Your task to perform on an android device: toggle location history Image 0: 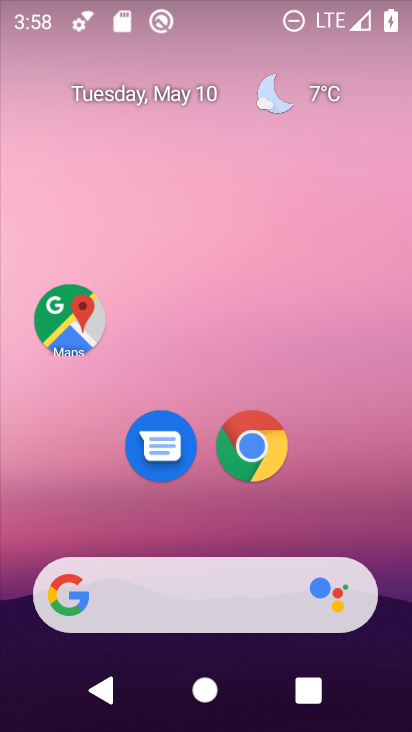
Step 0: drag from (216, 521) to (216, 99)
Your task to perform on an android device: toggle location history Image 1: 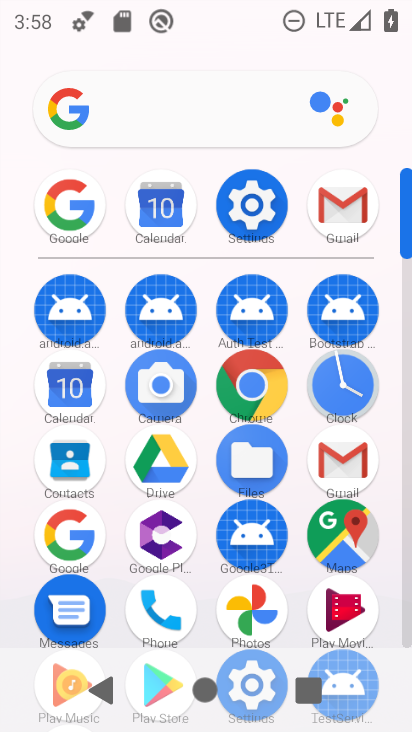
Step 1: click (261, 204)
Your task to perform on an android device: toggle location history Image 2: 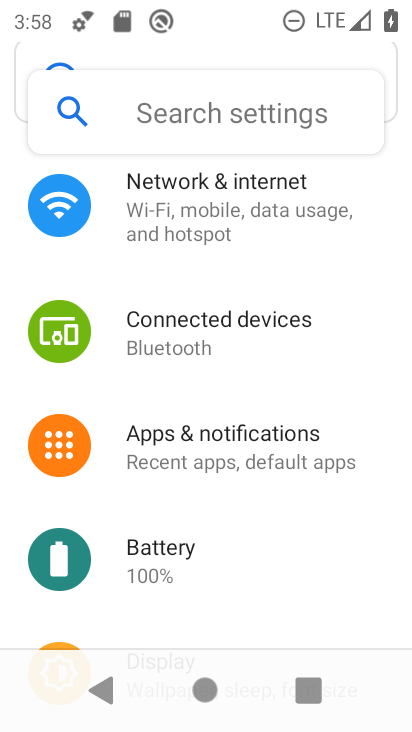
Step 2: drag from (253, 513) to (226, 226)
Your task to perform on an android device: toggle location history Image 3: 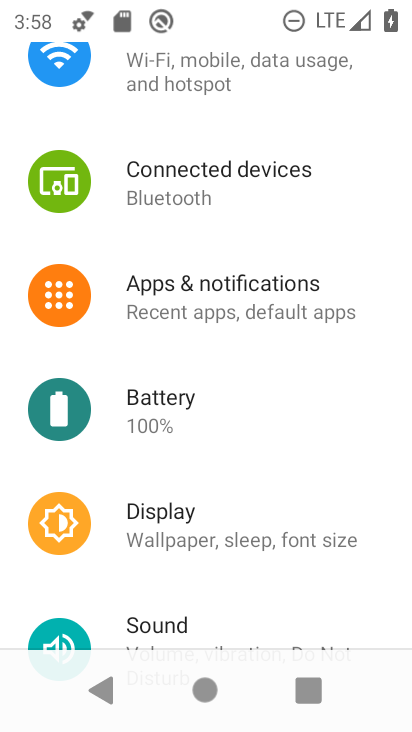
Step 3: drag from (236, 542) to (254, 218)
Your task to perform on an android device: toggle location history Image 4: 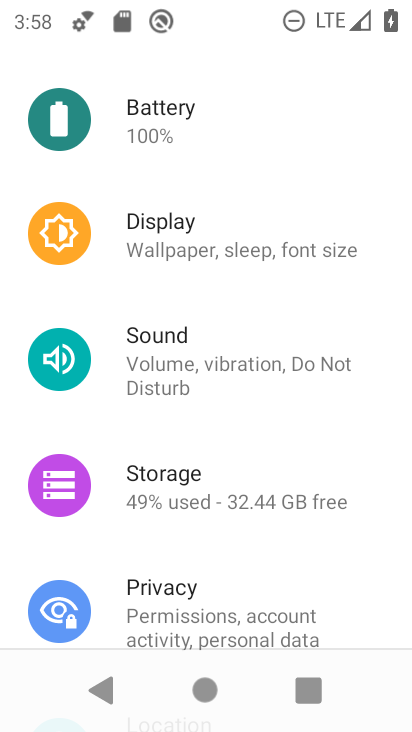
Step 4: drag from (224, 542) to (251, 183)
Your task to perform on an android device: toggle location history Image 5: 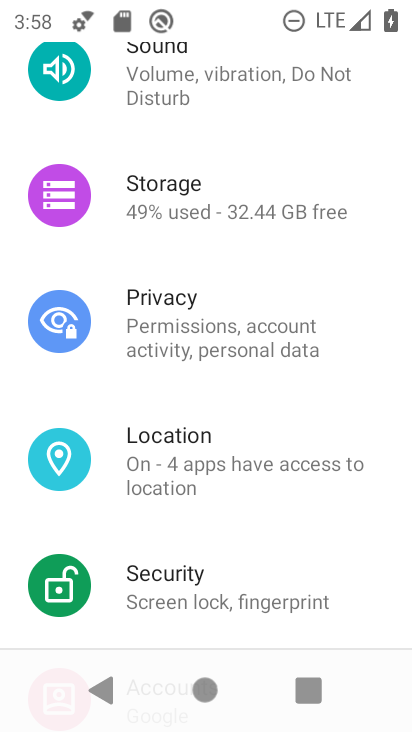
Step 5: click (231, 451)
Your task to perform on an android device: toggle location history Image 6: 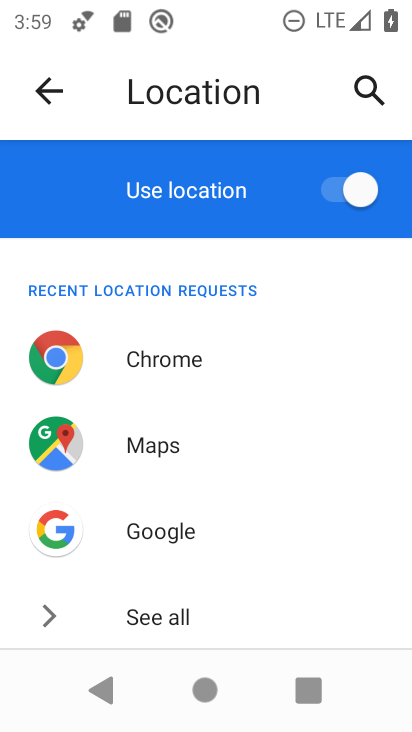
Step 6: drag from (243, 556) to (275, 181)
Your task to perform on an android device: toggle location history Image 7: 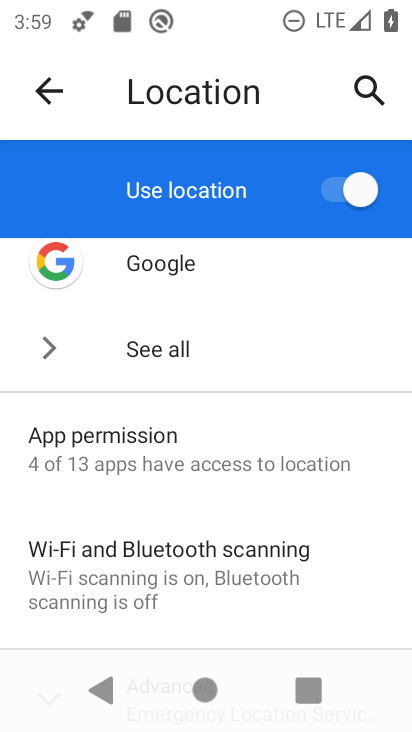
Step 7: drag from (225, 533) to (230, 325)
Your task to perform on an android device: toggle location history Image 8: 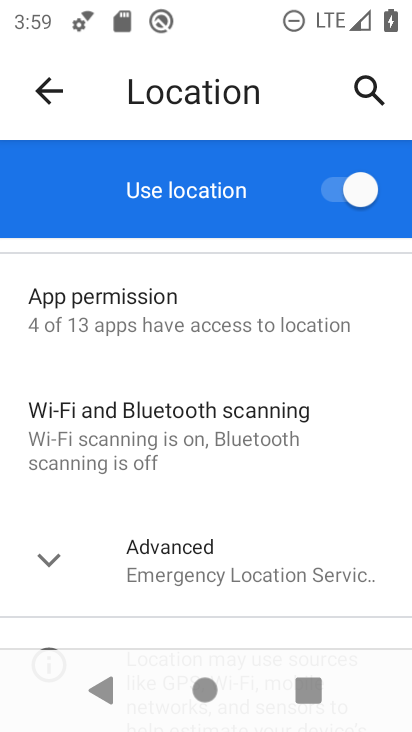
Step 8: click (179, 548)
Your task to perform on an android device: toggle location history Image 9: 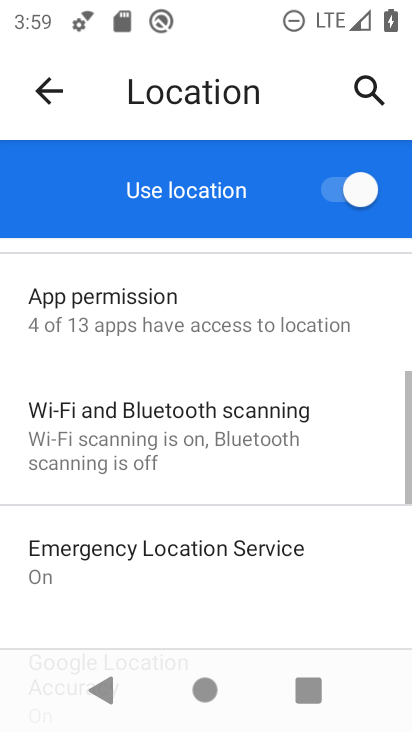
Step 9: drag from (219, 536) to (254, 195)
Your task to perform on an android device: toggle location history Image 10: 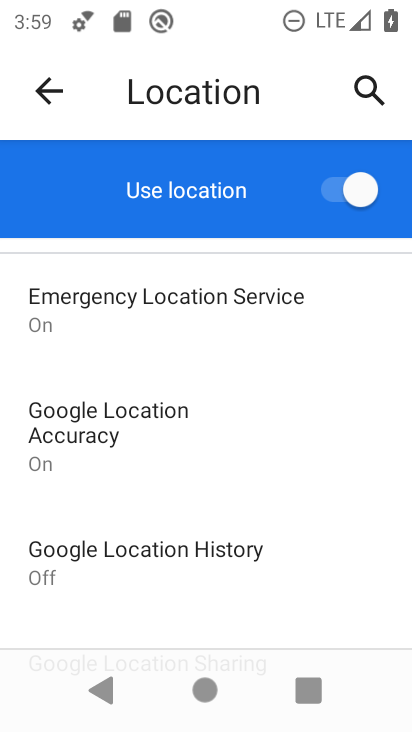
Step 10: click (233, 546)
Your task to perform on an android device: toggle location history Image 11: 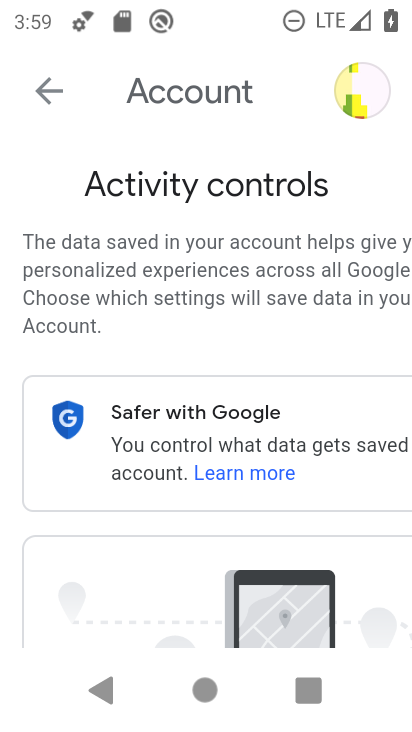
Step 11: drag from (194, 537) to (222, 212)
Your task to perform on an android device: toggle location history Image 12: 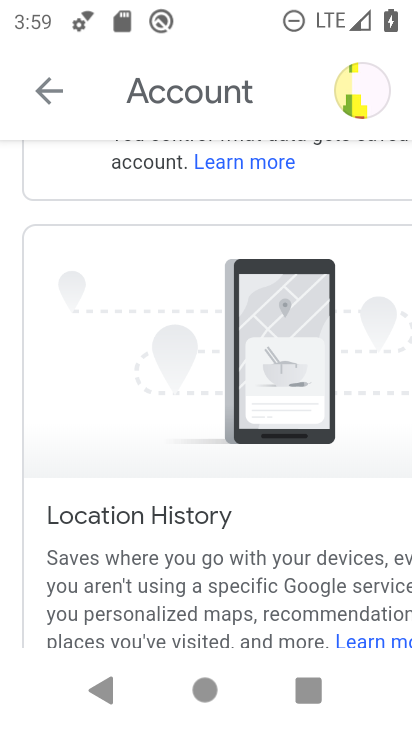
Step 12: drag from (225, 485) to (252, 197)
Your task to perform on an android device: toggle location history Image 13: 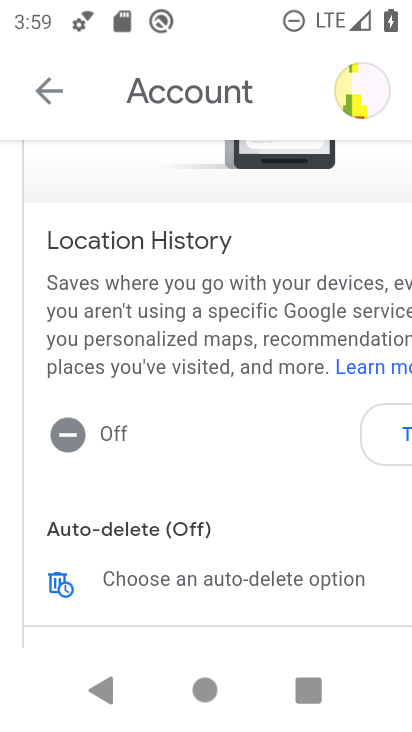
Step 13: click (397, 431)
Your task to perform on an android device: toggle location history Image 14: 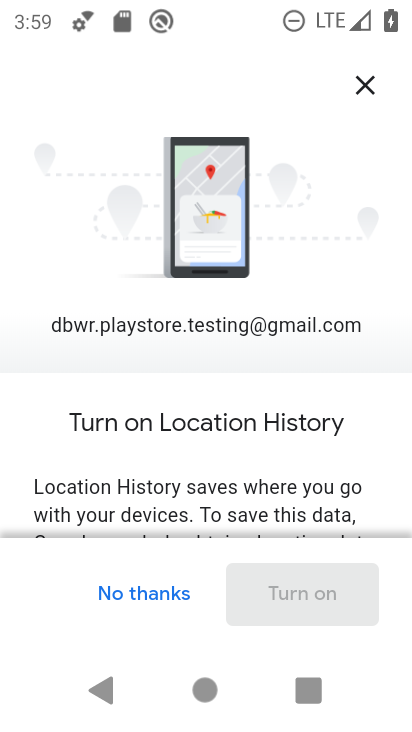
Step 14: drag from (264, 489) to (282, 130)
Your task to perform on an android device: toggle location history Image 15: 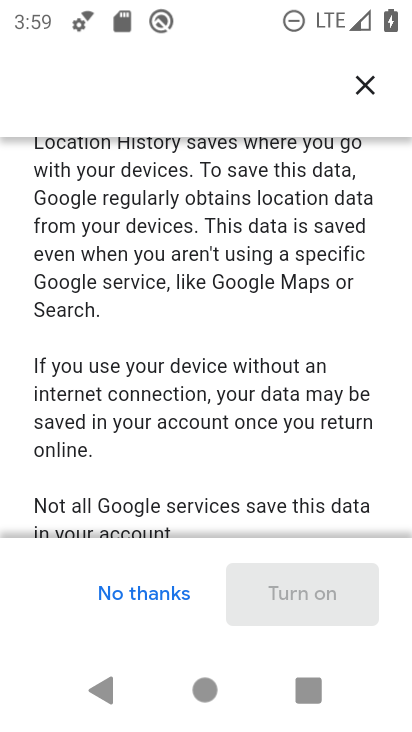
Step 15: drag from (236, 467) to (248, 144)
Your task to perform on an android device: toggle location history Image 16: 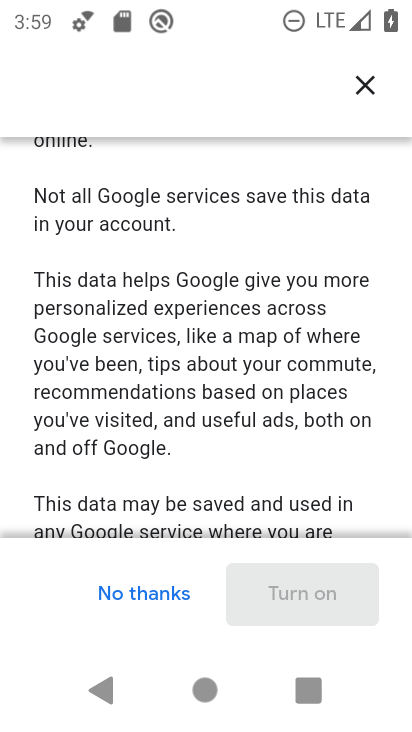
Step 16: drag from (226, 436) to (249, 149)
Your task to perform on an android device: toggle location history Image 17: 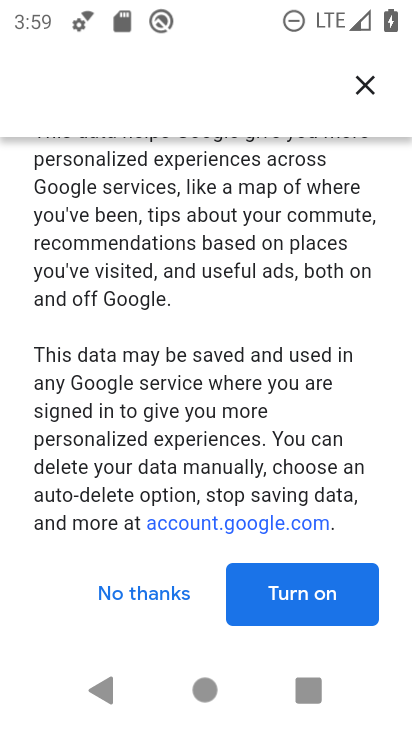
Step 17: click (304, 568)
Your task to perform on an android device: toggle location history Image 18: 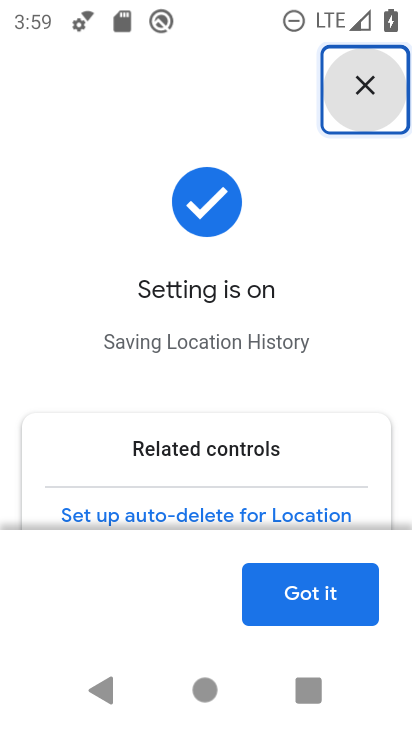
Step 18: click (328, 594)
Your task to perform on an android device: toggle location history Image 19: 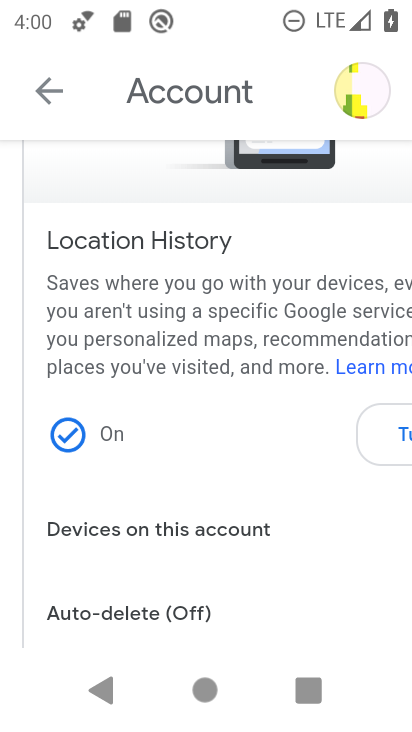
Step 19: task complete